Your task to perform on an android device: turn off location Image 0: 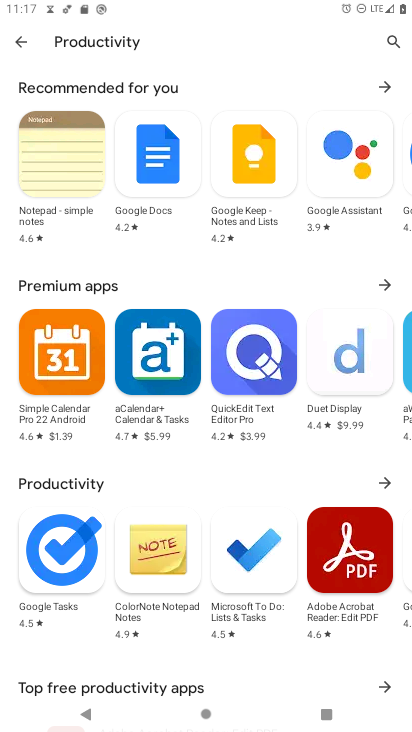
Step 0: press home button
Your task to perform on an android device: turn off location Image 1: 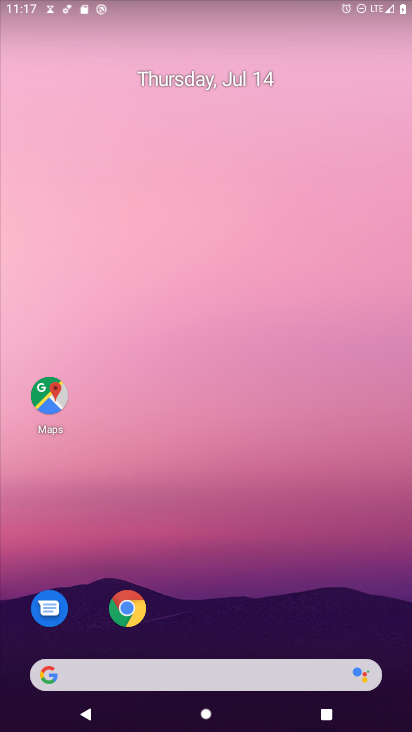
Step 1: drag from (249, 728) to (220, 123)
Your task to perform on an android device: turn off location Image 2: 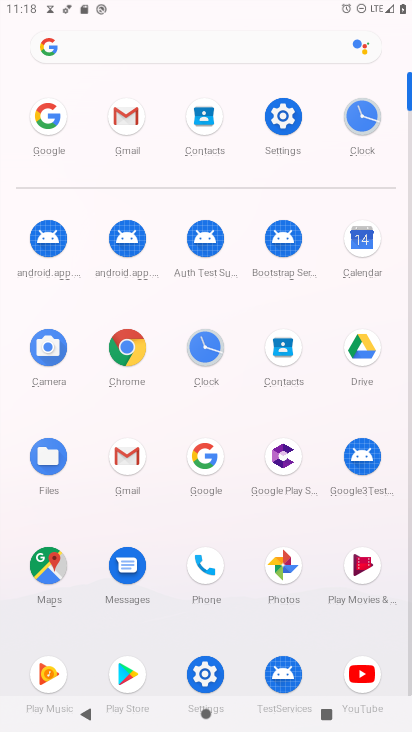
Step 2: click (276, 120)
Your task to perform on an android device: turn off location Image 3: 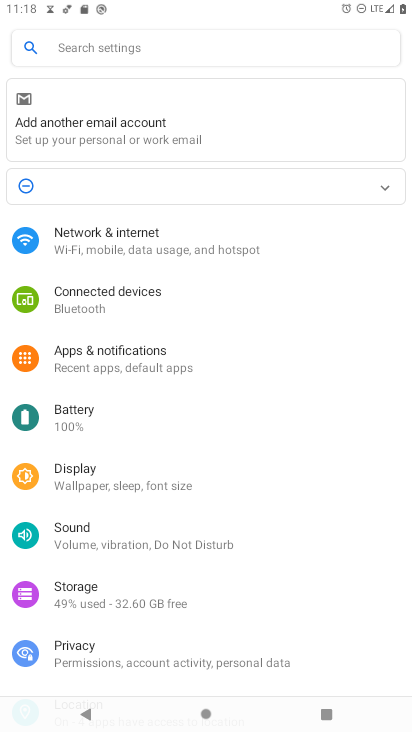
Step 3: drag from (84, 644) to (90, 360)
Your task to perform on an android device: turn off location Image 4: 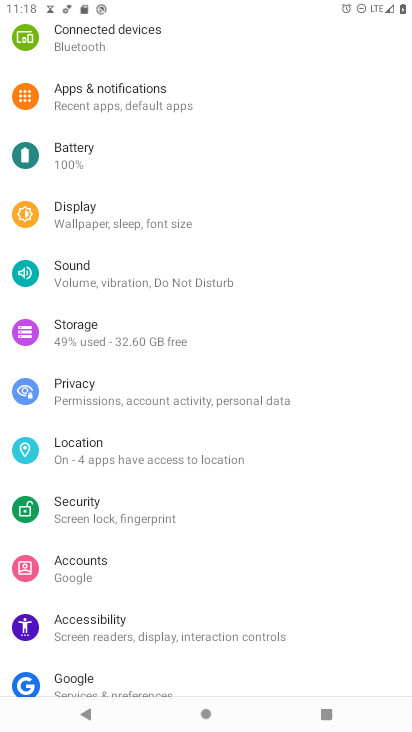
Step 4: click (88, 454)
Your task to perform on an android device: turn off location Image 5: 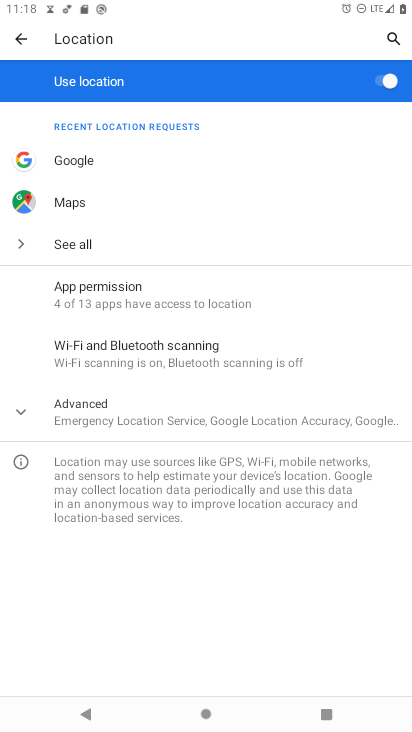
Step 5: click (379, 83)
Your task to perform on an android device: turn off location Image 6: 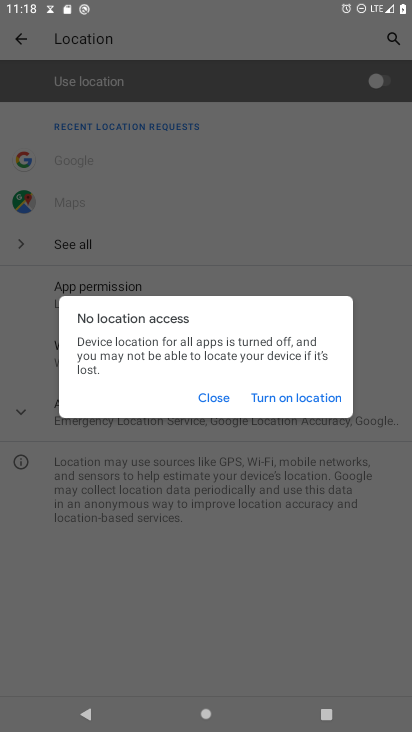
Step 6: task complete